Your task to perform on an android device: Open maps Image 0: 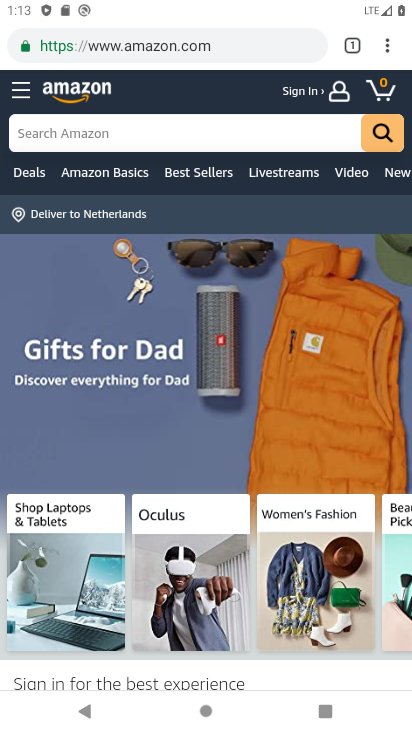
Step 0: press home button
Your task to perform on an android device: Open maps Image 1: 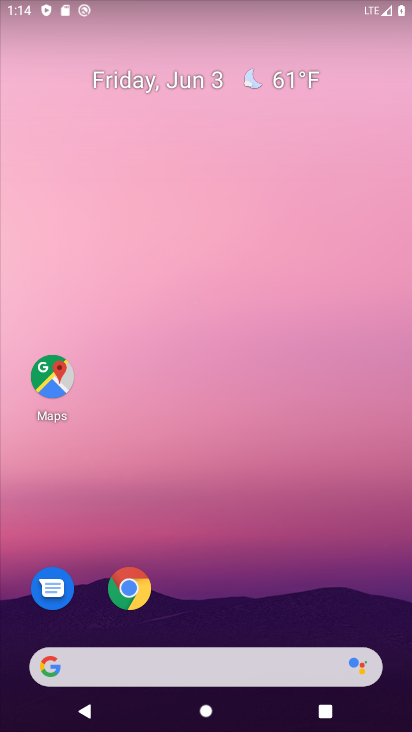
Step 1: drag from (253, 551) to (330, 130)
Your task to perform on an android device: Open maps Image 2: 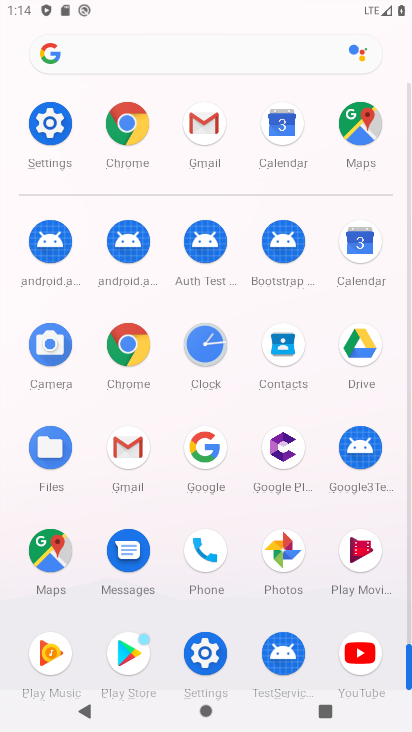
Step 2: click (58, 560)
Your task to perform on an android device: Open maps Image 3: 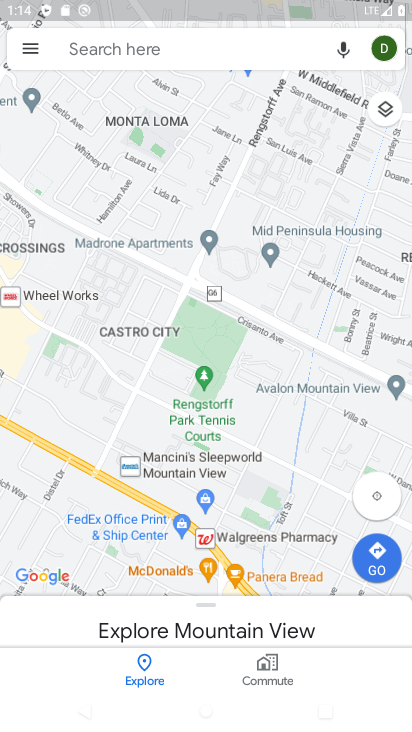
Step 3: task complete